Your task to perform on an android device: change the clock display to analog Image 0: 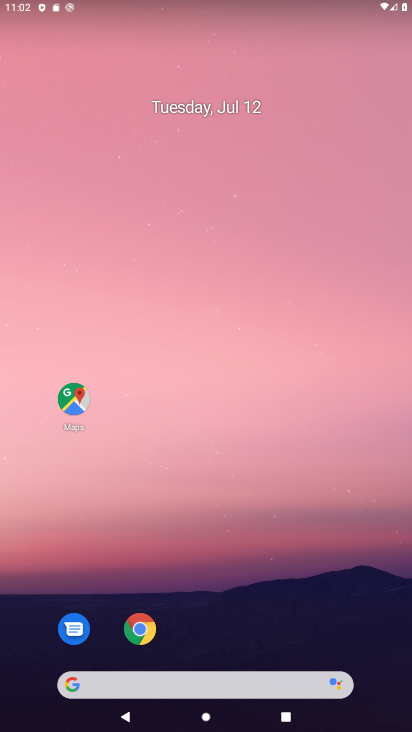
Step 0: drag from (269, 591) to (204, 290)
Your task to perform on an android device: change the clock display to analog Image 1: 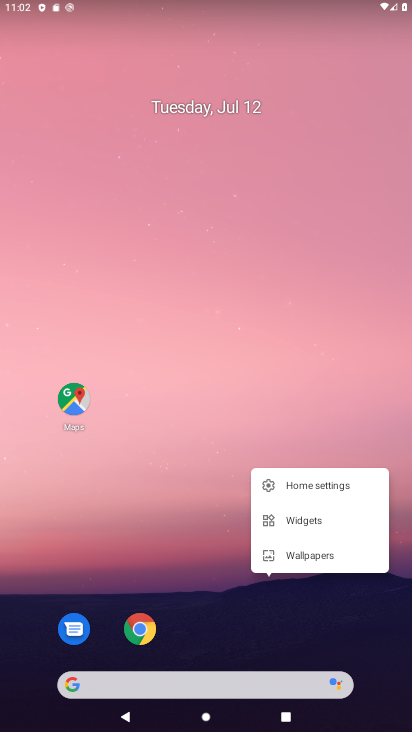
Step 1: click (191, 357)
Your task to perform on an android device: change the clock display to analog Image 2: 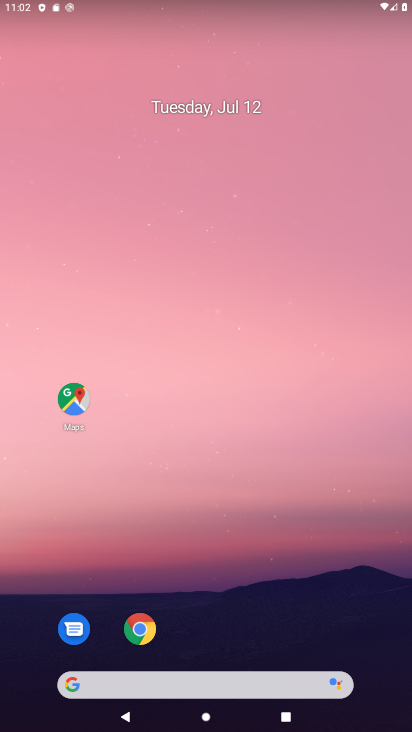
Step 2: click (202, 515)
Your task to perform on an android device: change the clock display to analog Image 3: 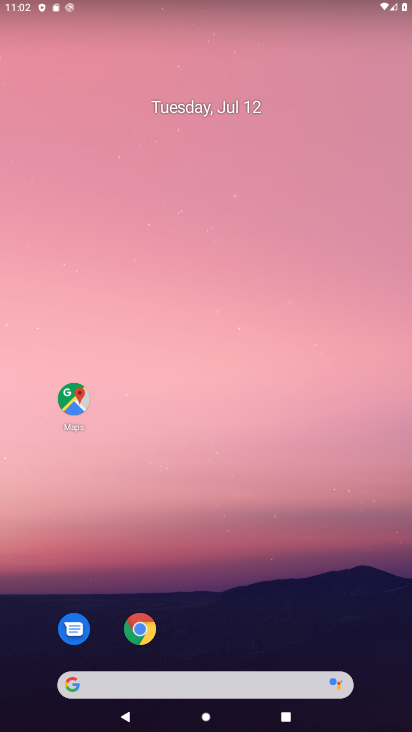
Step 3: drag from (229, 567) to (163, 163)
Your task to perform on an android device: change the clock display to analog Image 4: 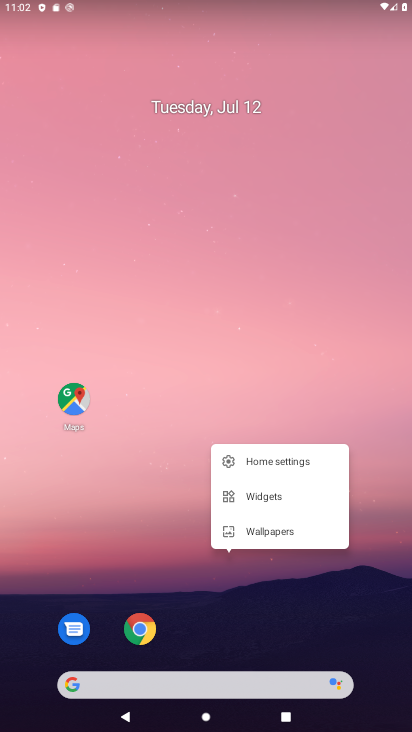
Step 4: click (131, 487)
Your task to perform on an android device: change the clock display to analog Image 5: 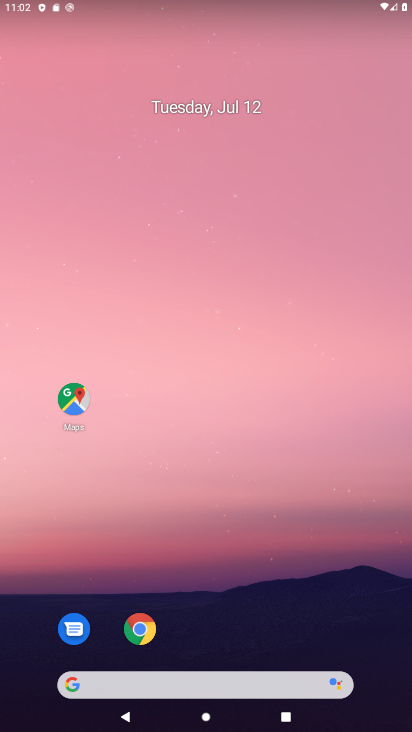
Step 5: drag from (242, 618) to (141, 82)
Your task to perform on an android device: change the clock display to analog Image 6: 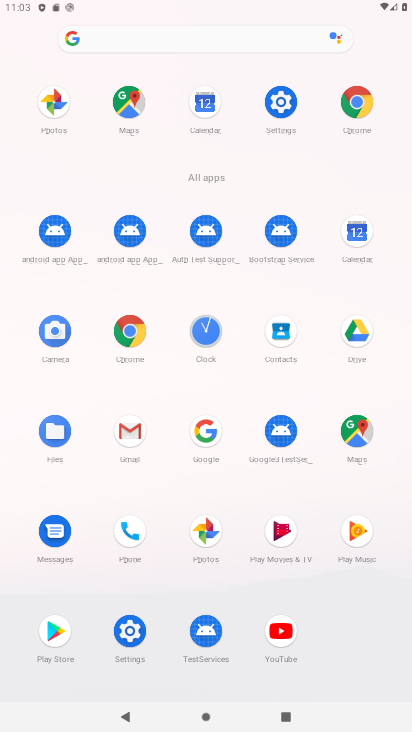
Step 6: click (204, 330)
Your task to perform on an android device: change the clock display to analog Image 7: 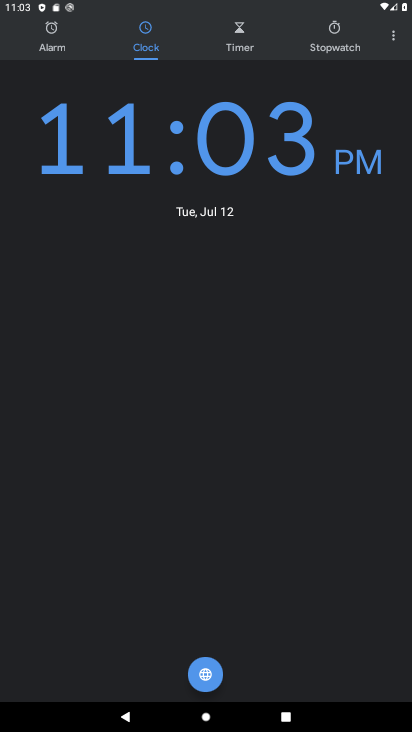
Step 7: click (393, 33)
Your task to perform on an android device: change the clock display to analog Image 8: 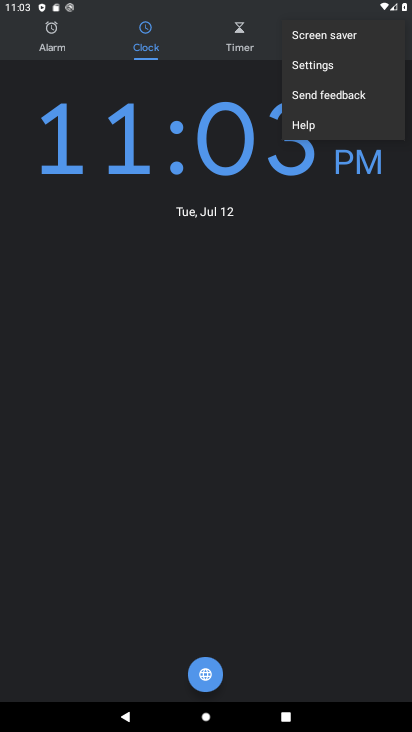
Step 8: click (318, 68)
Your task to perform on an android device: change the clock display to analog Image 9: 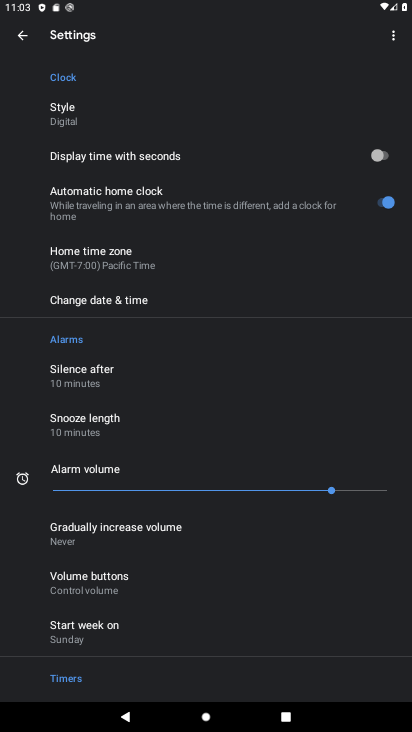
Step 9: click (74, 111)
Your task to perform on an android device: change the clock display to analog Image 10: 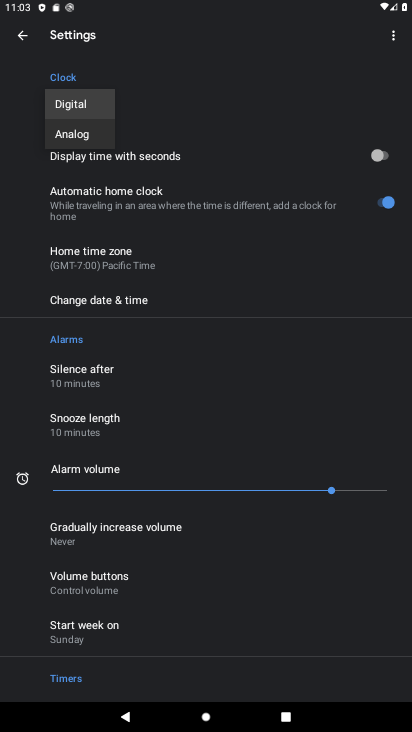
Step 10: click (74, 136)
Your task to perform on an android device: change the clock display to analog Image 11: 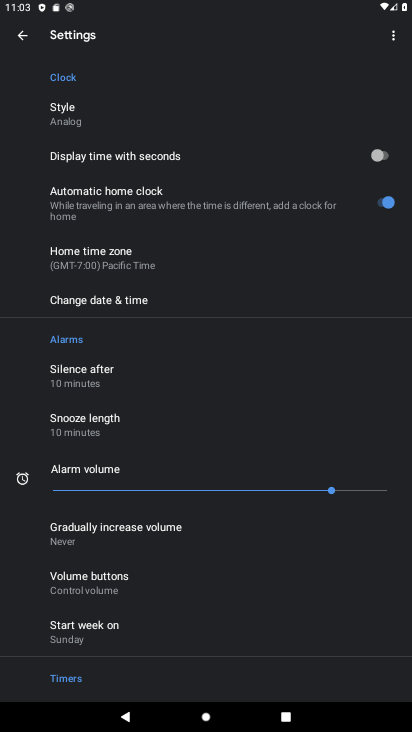
Step 11: task complete